Your task to perform on an android device: Turn off the flashlight Image 0: 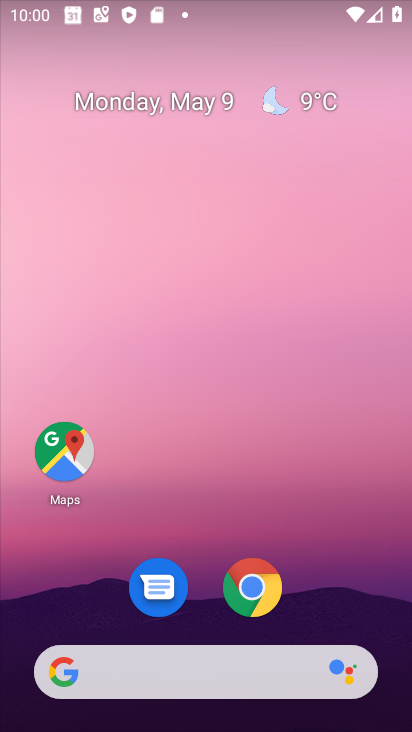
Step 0: drag from (306, 557) to (284, 17)
Your task to perform on an android device: Turn off the flashlight Image 1: 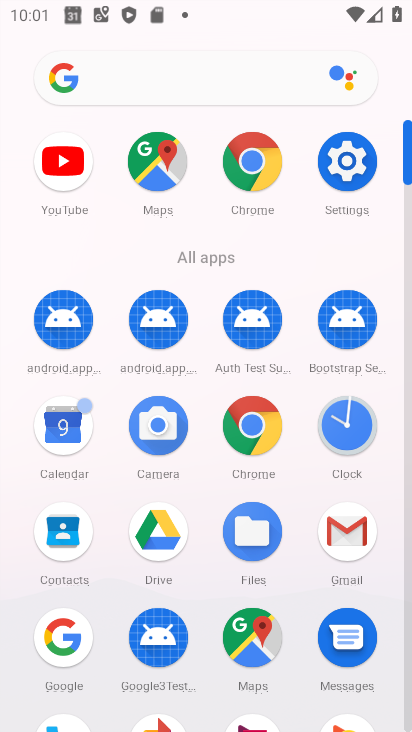
Step 1: click (349, 174)
Your task to perform on an android device: Turn off the flashlight Image 2: 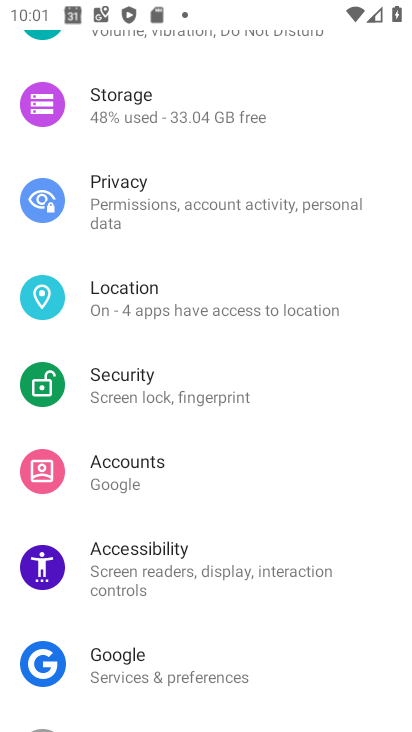
Step 2: task complete